Your task to perform on an android device: set an alarm Image 0: 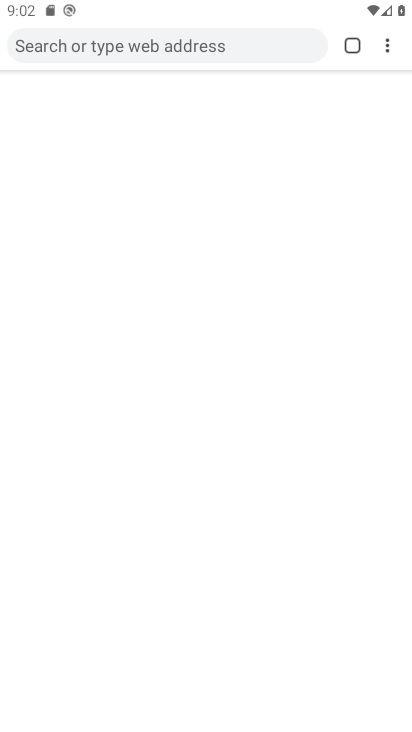
Step 0: press home button
Your task to perform on an android device: set an alarm Image 1: 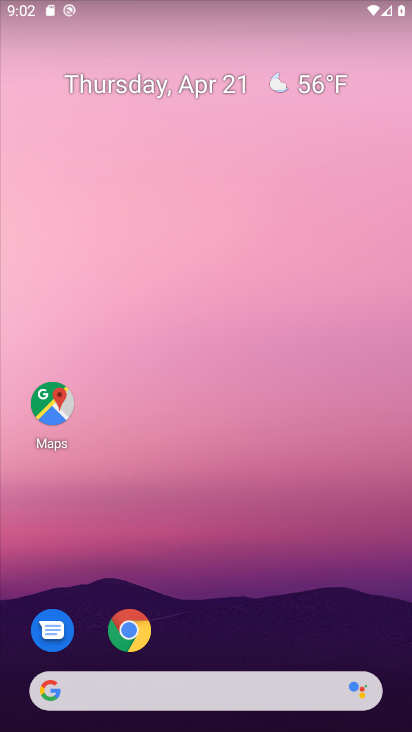
Step 1: drag from (207, 347) to (336, 6)
Your task to perform on an android device: set an alarm Image 2: 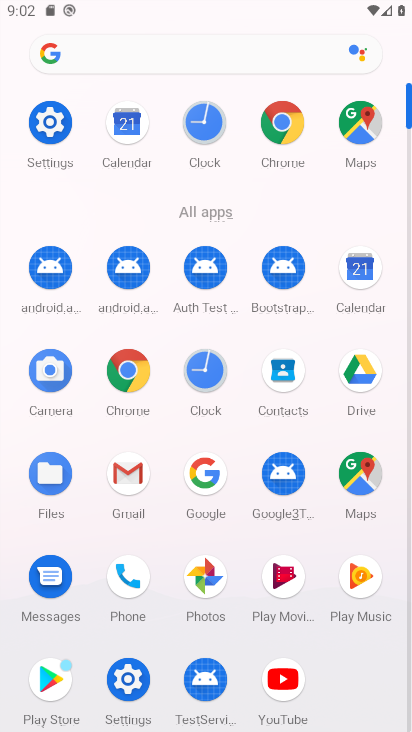
Step 2: click (196, 142)
Your task to perform on an android device: set an alarm Image 3: 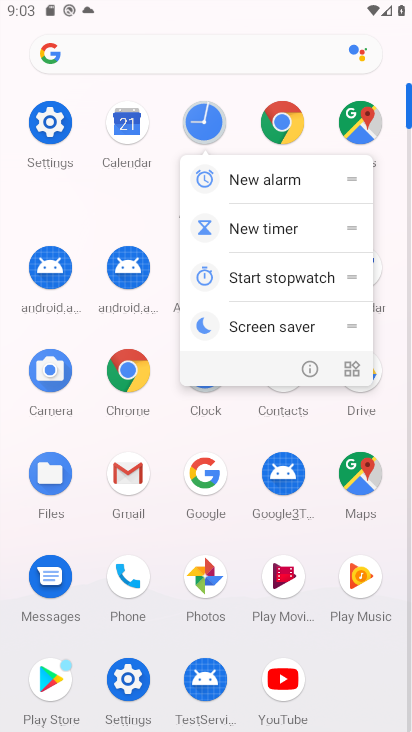
Step 3: click (197, 115)
Your task to perform on an android device: set an alarm Image 4: 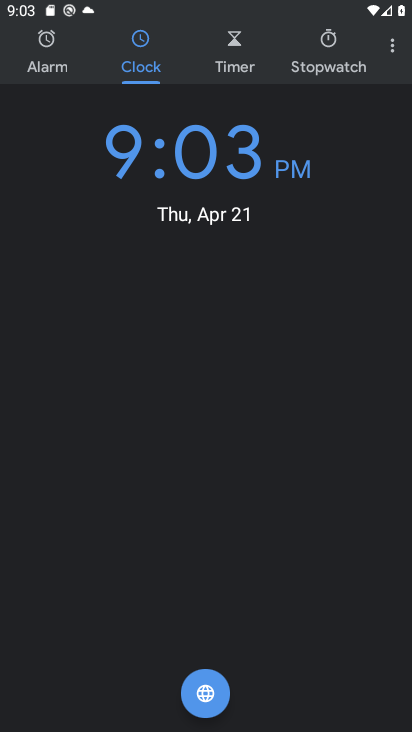
Step 4: click (75, 74)
Your task to perform on an android device: set an alarm Image 5: 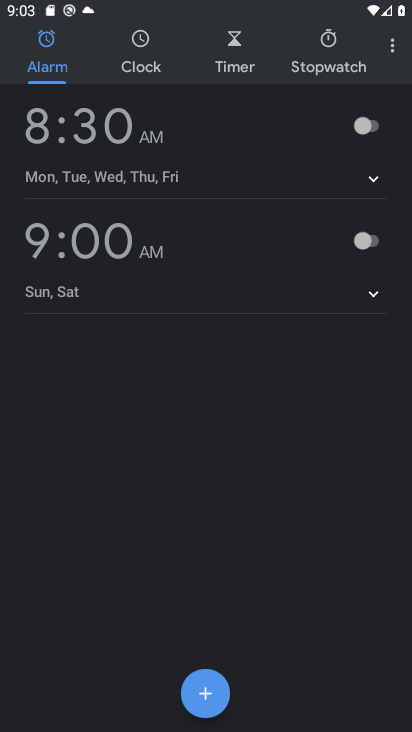
Step 5: click (352, 252)
Your task to perform on an android device: set an alarm Image 6: 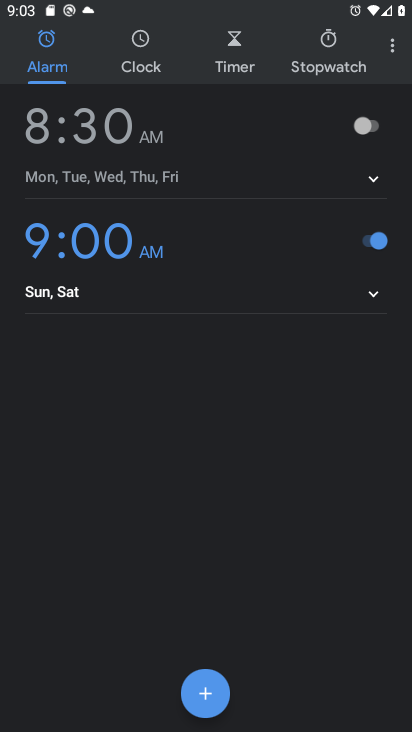
Step 6: task complete